Your task to perform on an android device: Open wifi settings Image 0: 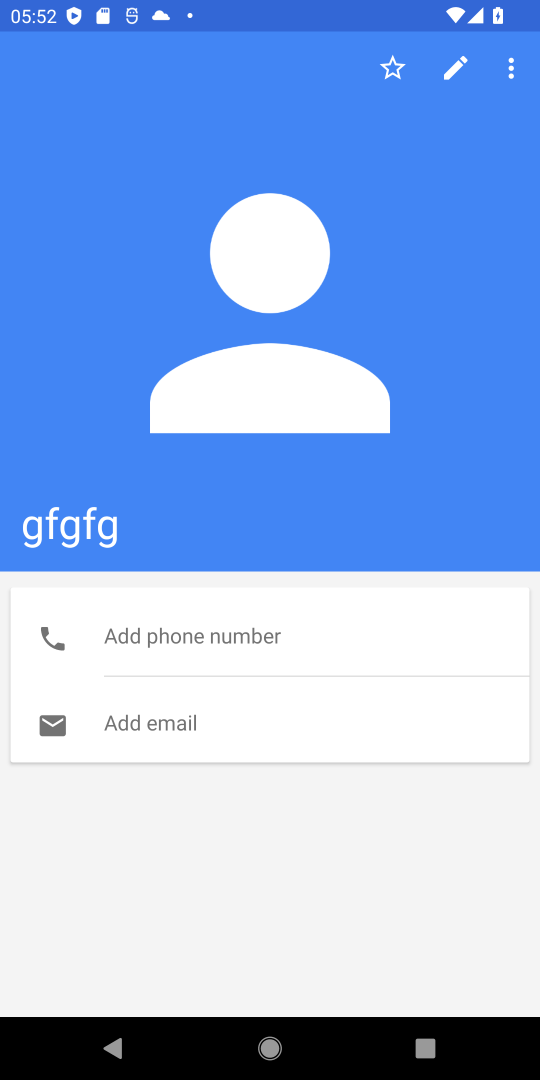
Step 0: press home button
Your task to perform on an android device: Open wifi settings Image 1: 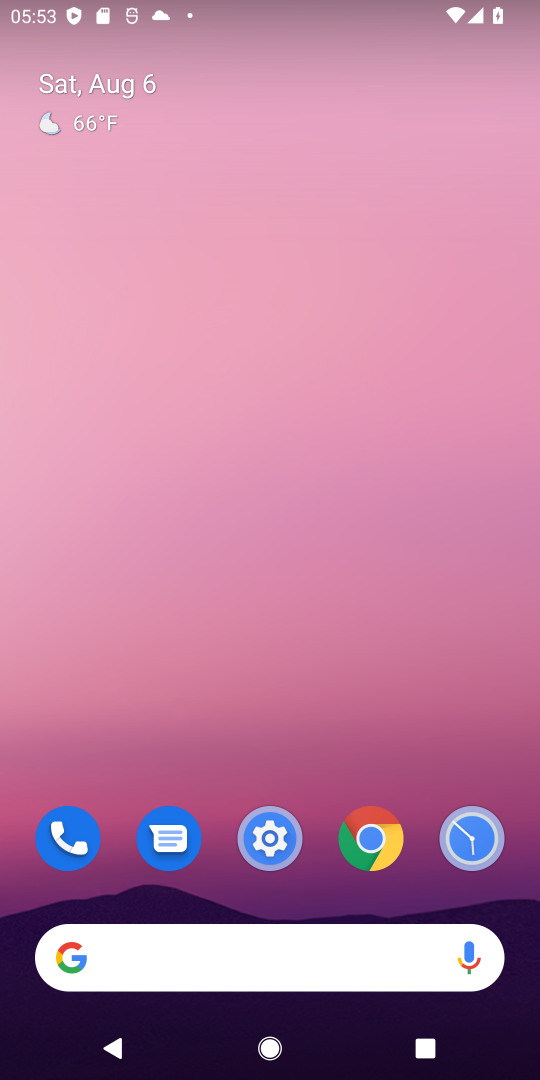
Step 1: drag from (364, 880) to (277, 72)
Your task to perform on an android device: Open wifi settings Image 2: 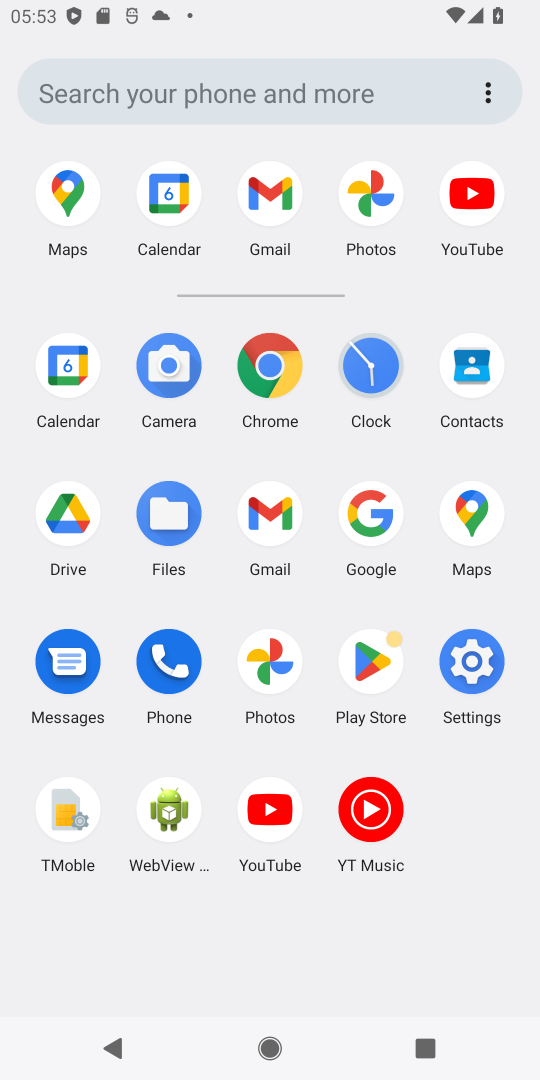
Step 2: click (463, 682)
Your task to perform on an android device: Open wifi settings Image 3: 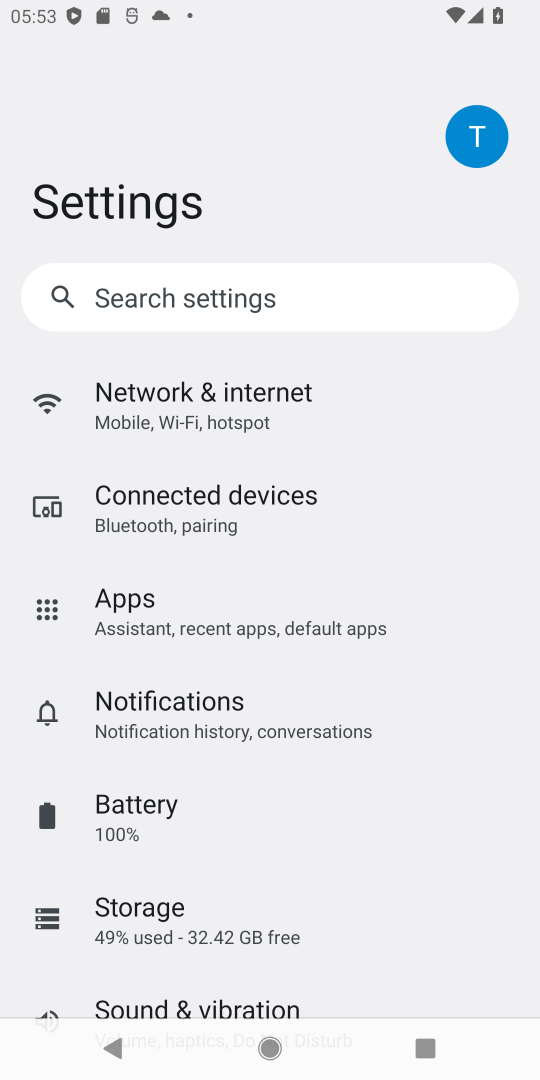
Step 3: click (265, 431)
Your task to perform on an android device: Open wifi settings Image 4: 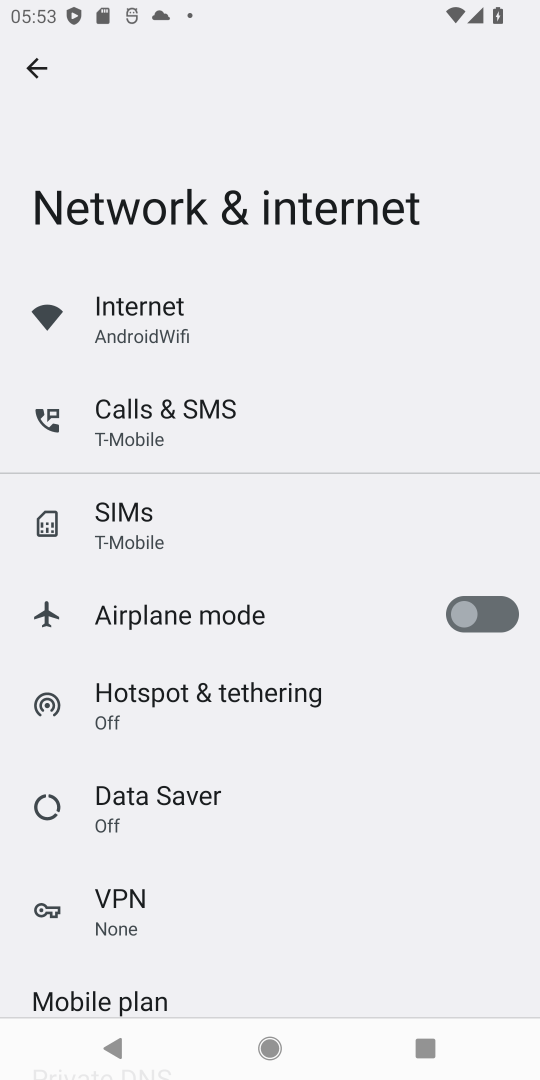
Step 4: click (241, 335)
Your task to perform on an android device: Open wifi settings Image 5: 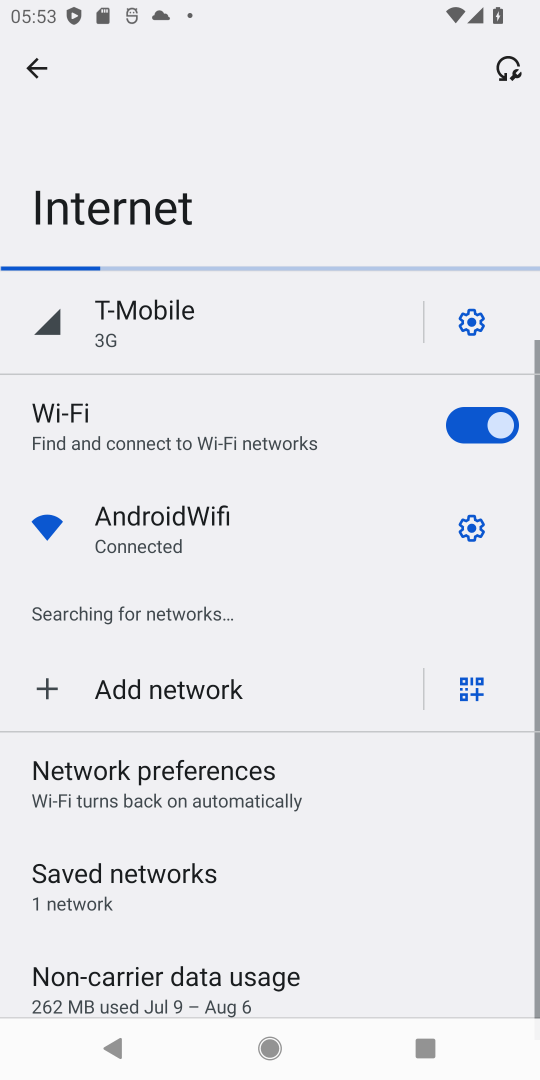
Step 5: click (172, 526)
Your task to perform on an android device: Open wifi settings Image 6: 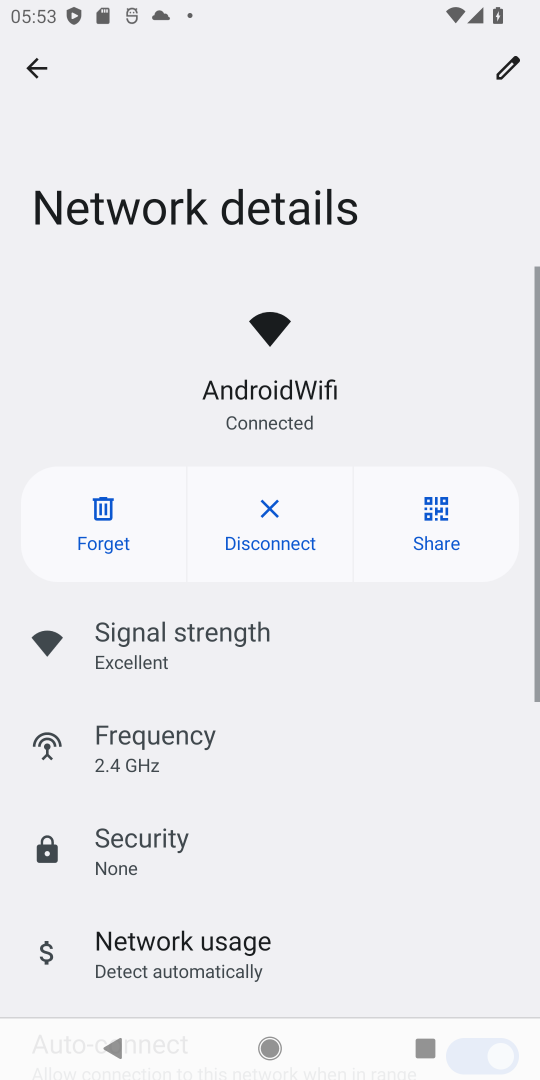
Step 6: task complete